Your task to perform on an android device: What's on my calendar today? Image 0: 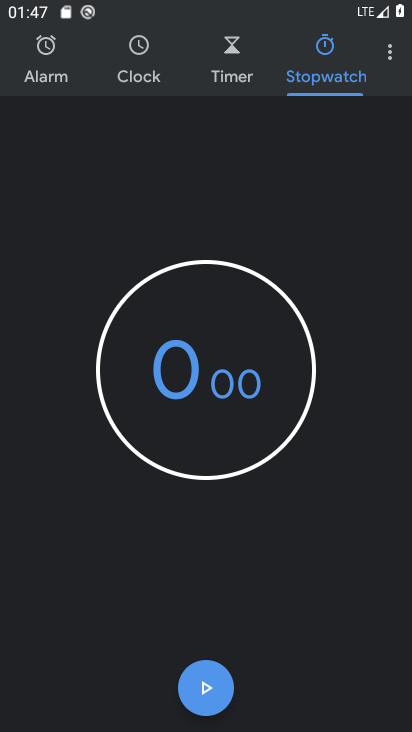
Step 0: press home button
Your task to perform on an android device: What's on my calendar today? Image 1: 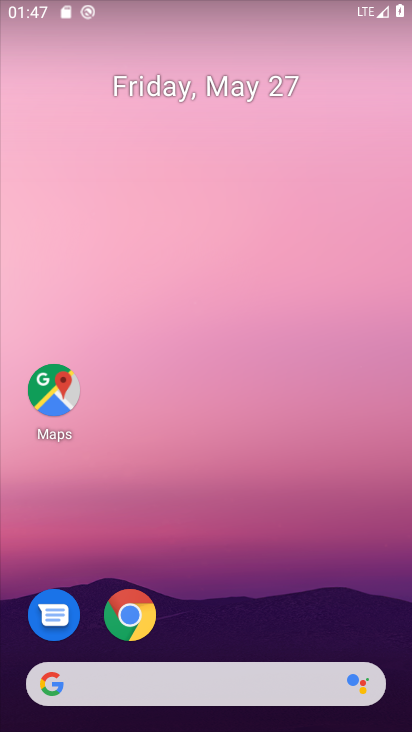
Step 1: drag from (357, 618) to (363, 259)
Your task to perform on an android device: What's on my calendar today? Image 2: 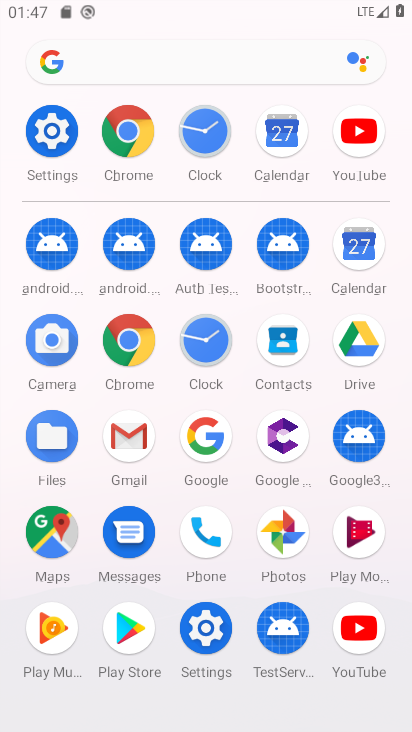
Step 2: click (366, 263)
Your task to perform on an android device: What's on my calendar today? Image 3: 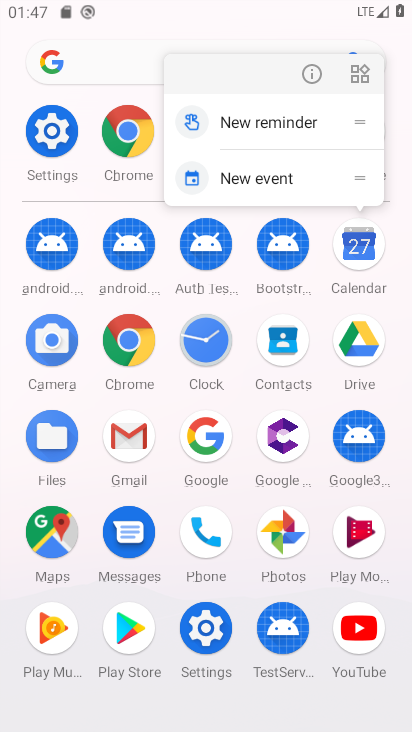
Step 3: click (370, 262)
Your task to perform on an android device: What's on my calendar today? Image 4: 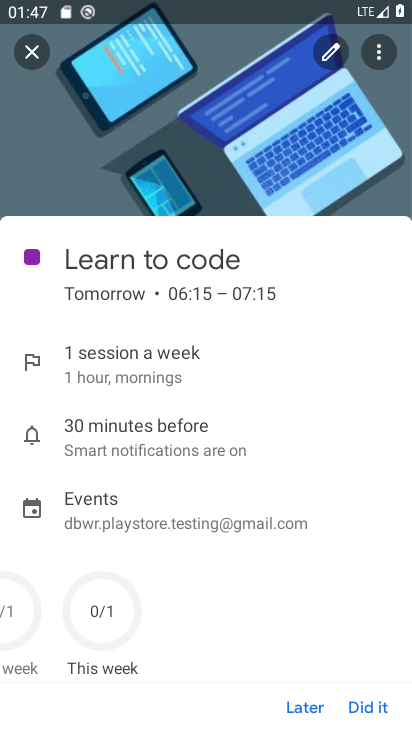
Step 4: click (34, 60)
Your task to perform on an android device: What's on my calendar today? Image 5: 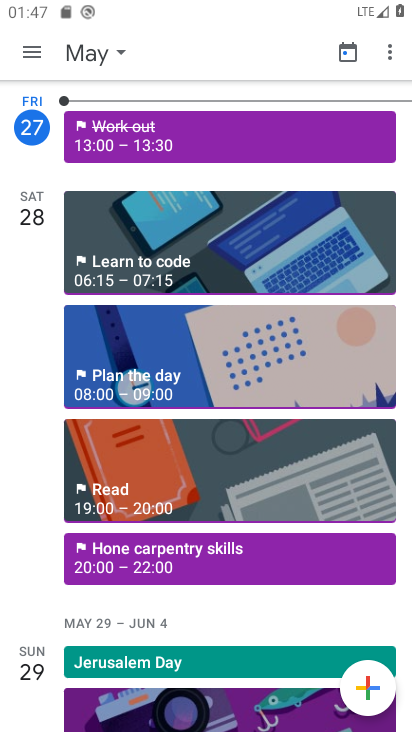
Step 5: click (203, 134)
Your task to perform on an android device: What's on my calendar today? Image 6: 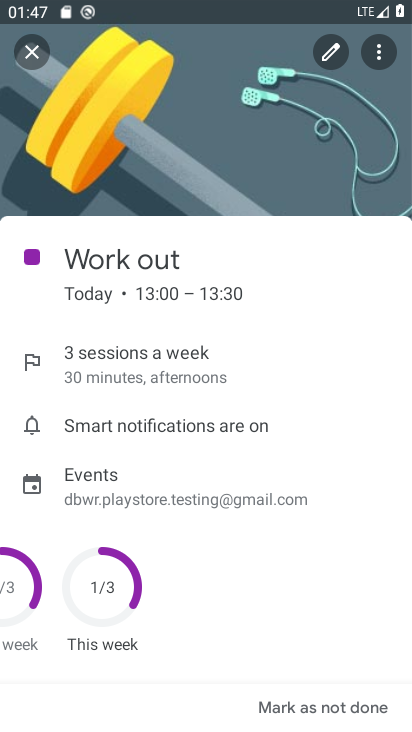
Step 6: task complete